Your task to perform on an android device: When is my next appointment? Image 0: 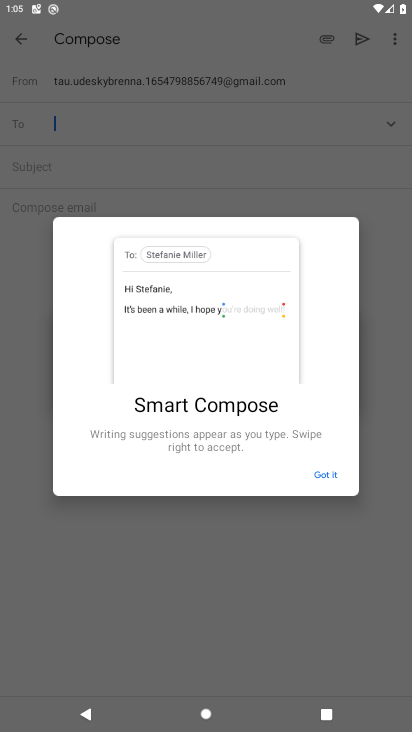
Step 0: press home button
Your task to perform on an android device: When is my next appointment? Image 1: 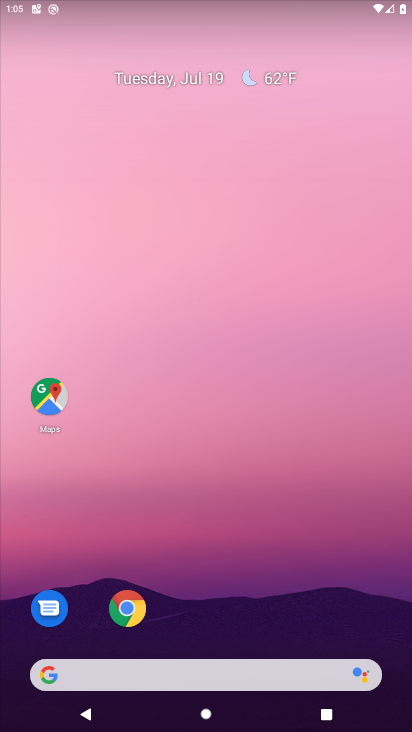
Step 1: drag from (228, 637) to (314, 111)
Your task to perform on an android device: When is my next appointment? Image 2: 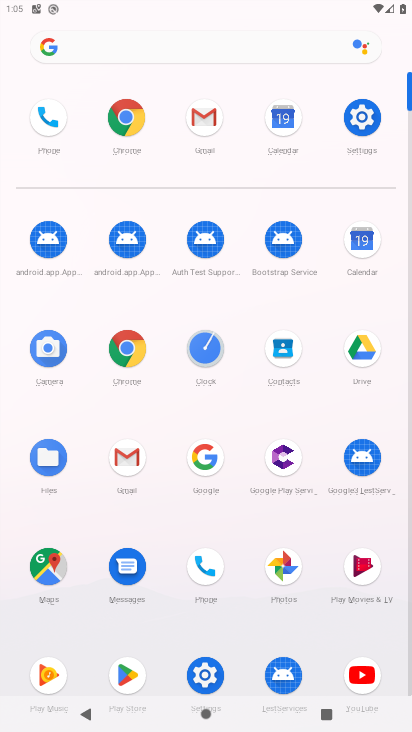
Step 2: click (361, 240)
Your task to perform on an android device: When is my next appointment? Image 3: 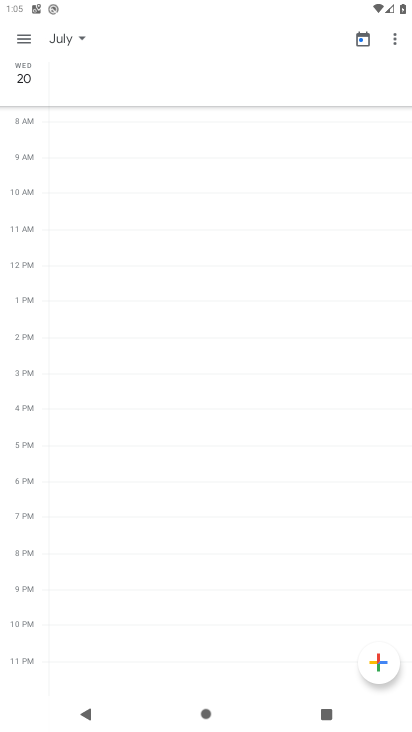
Step 3: click (36, 79)
Your task to perform on an android device: When is my next appointment? Image 4: 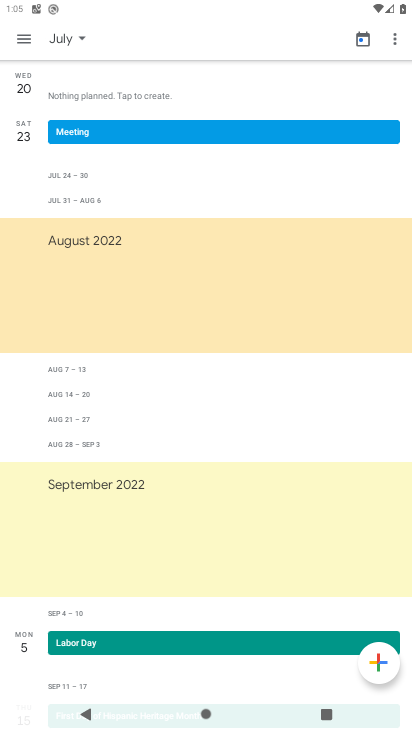
Step 4: click (82, 37)
Your task to perform on an android device: When is my next appointment? Image 5: 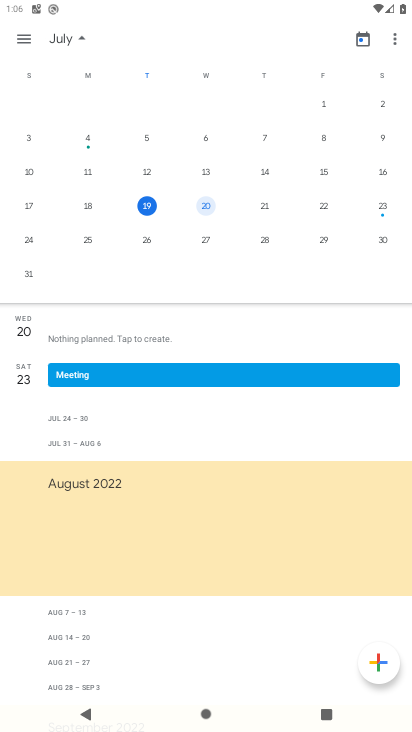
Step 5: click (33, 48)
Your task to perform on an android device: When is my next appointment? Image 6: 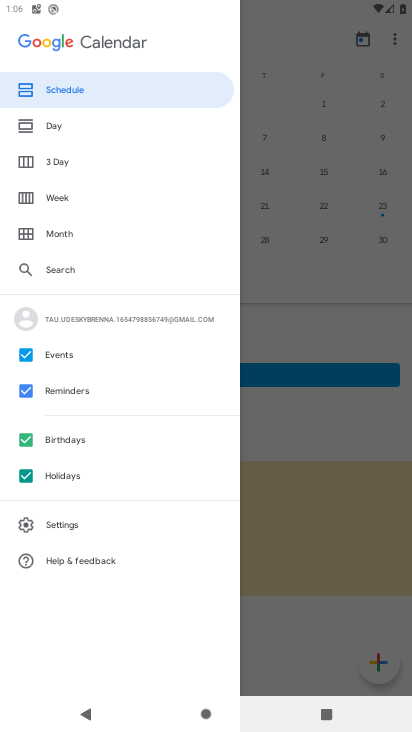
Step 6: click (56, 195)
Your task to perform on an android device: When is my next appointment? Image 7: 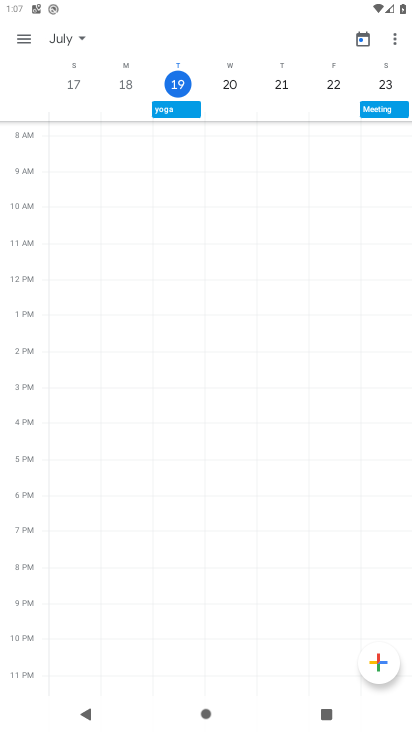
Step 7: task complete